Your task to perform on an android device: Check the weather Image 0: 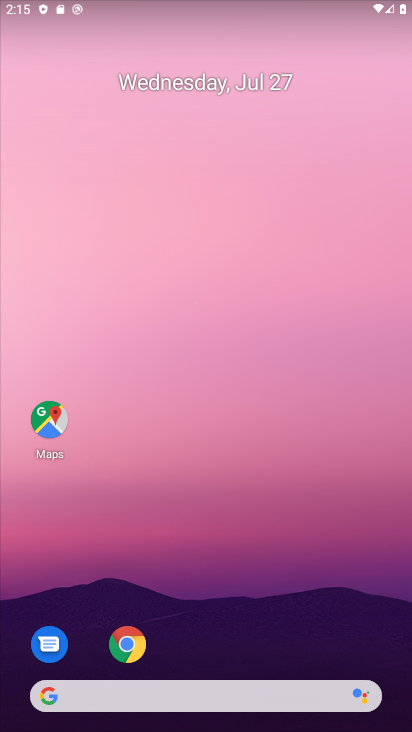
Step 0: drag from (275, 636) to (226, 205)
Your task to perform on an android device: Check the weather Image 1: 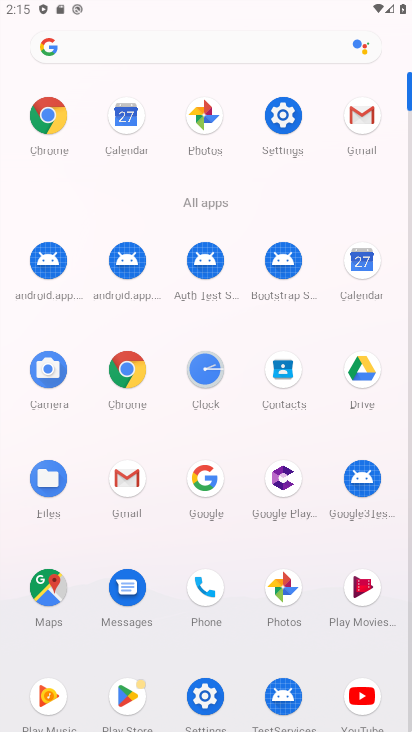
Step 1: click (40, 109)
Your task to perform on an android device: Check the weather Image 2: 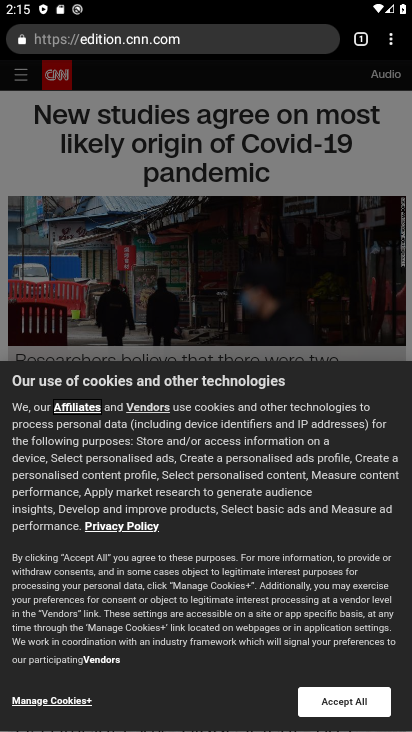
Step 2: click (188, 40)
Your task to perform on an android device: Check the weather Image 3: 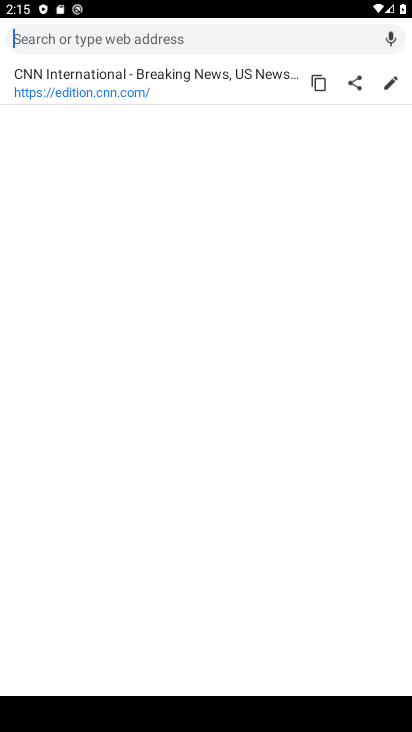
Step 3: type "Check the weather"
Your task to perform on an android device: Check the weather Image 4: 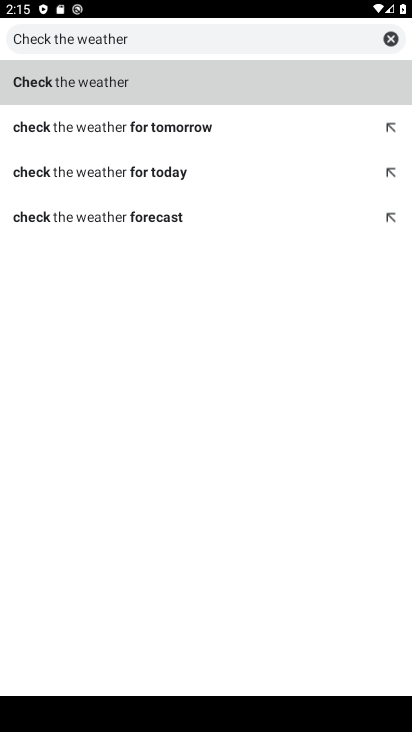
Step 4: click (121, 84)
Your task to perform on an android device: Check the weather Image 5: 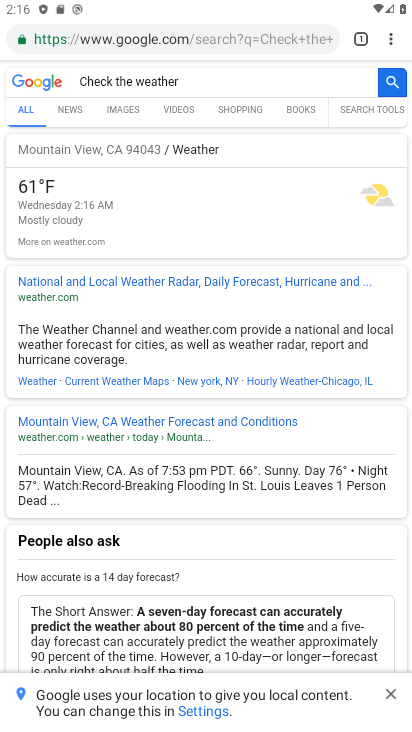
Step 5: task complete